Your task to perform on an android device: open app "Adobe Acrobat Reader" (install if not already installed) and go to login screen Image 0: 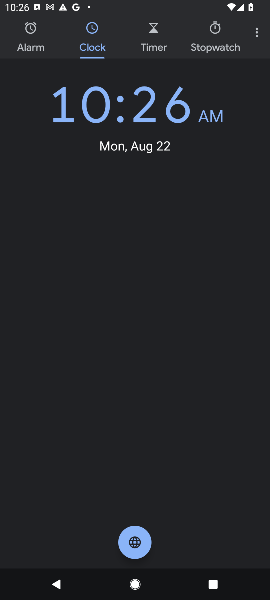
Step 0: press home button
Your task to perform on an android device: open app "Adobe Acrobat Reader" (install if not already installed) and go to login screen Image 1: 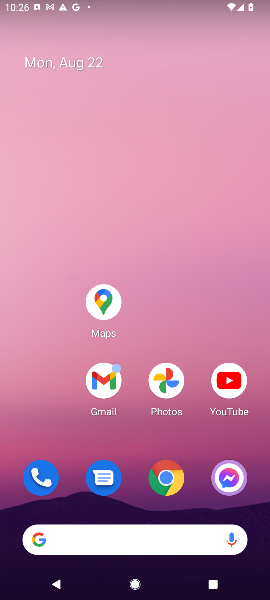
Step 1: drag from (126, 500) to (133, 157)
Your task to perform on an android device: open app "Adobe Acrobat Reader" (install if not already installed) and go to login screen Image 2: 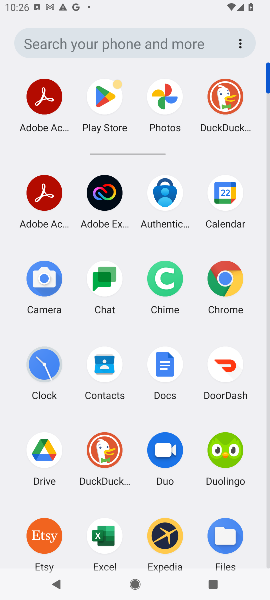
Step 2: click (32, 186)
Your task to perform on an android device: open app "Adobe Acrobat Reader" (install if not already installed) and go to login screen Image 3: 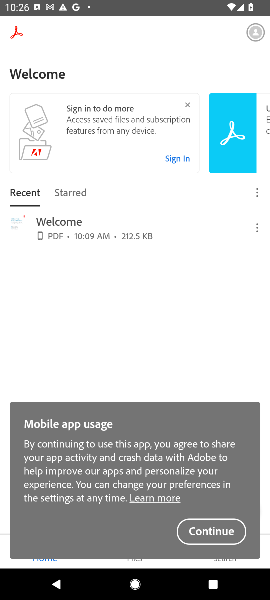
Step 3: click (214, 531)
Your task to perform on an android device: open app "Adobe Acrobat Reader" (install if not already installed) and go to login screen Image 4: 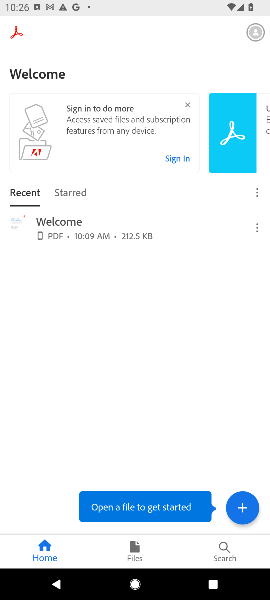
Step 4: click (248, 37)
Your task to perform on an android device: open app "Adobe Acrobat Reader" (install if not already installed) and go to login screen Image 5: 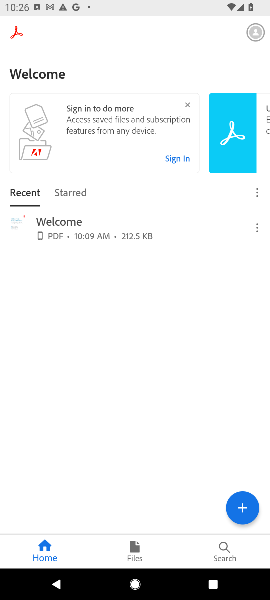
Step 5: click (250, 35)
Your task to perform on an android device: open app "Adobe Acrobat Reader" (install if not already installed) and go to login screen Image 6: 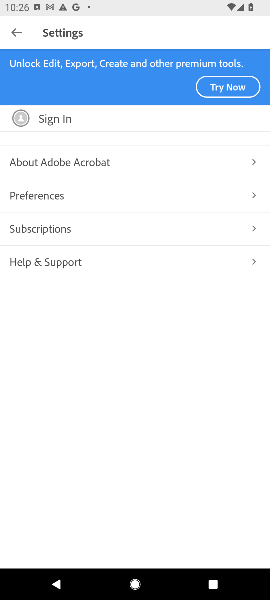
Step 6: click (70, 119)
Your task to perform on an android device: open app "Adobe Acrobat Reader" (install if not already installed) and go to login screen Image 7: 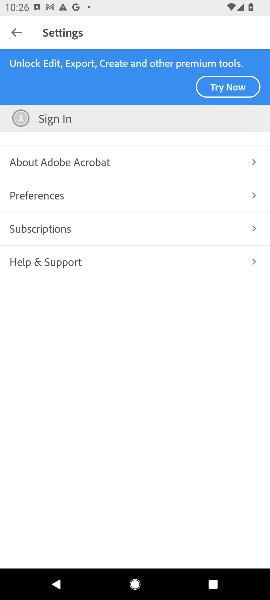
Step 7: task complete